Your task to perform on an android device: clear all cookies in the chrome app Image 0: 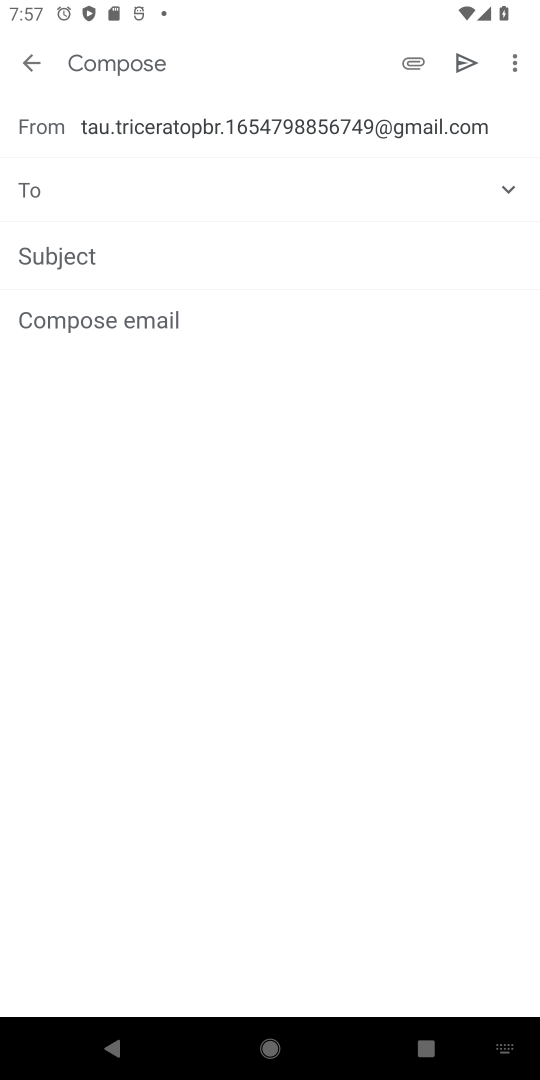
Step 0: press back button
Your task to perform on an android device: clear all cookies in the chrome app Image 1: 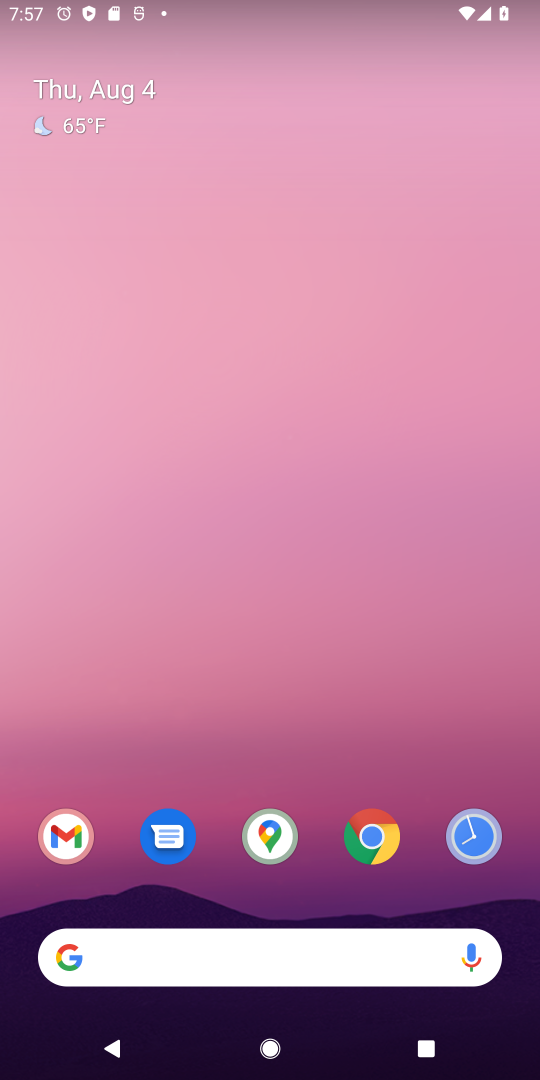
Step 1: click (377, 837)
Your task to perform on an android device: clear all cookies in the chrome app Image 2: 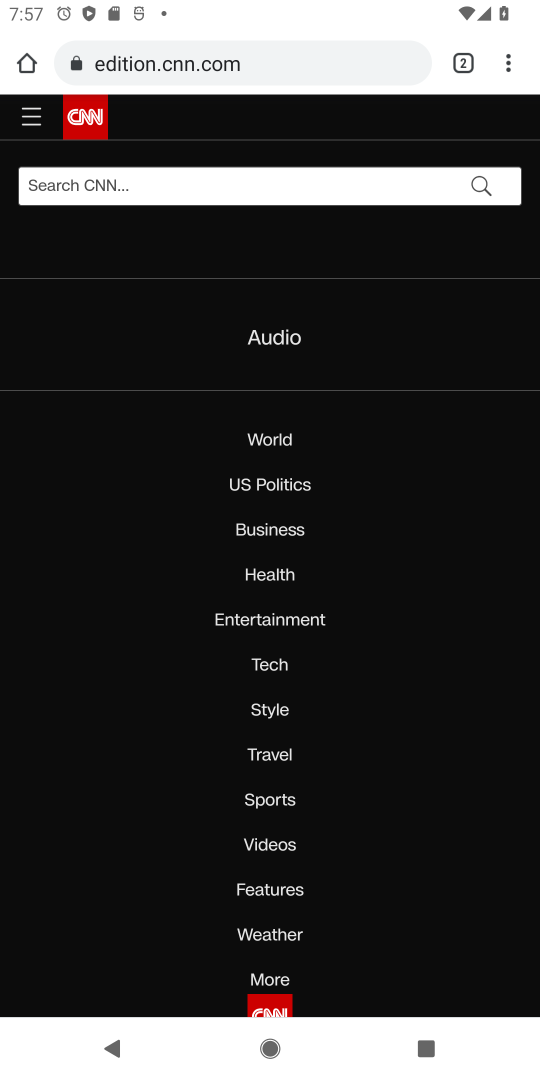
Step 2: drag from (503, 52) to (335, 821)
Your task to perform on an android device: clear all cookies in the chrome app Image 3: 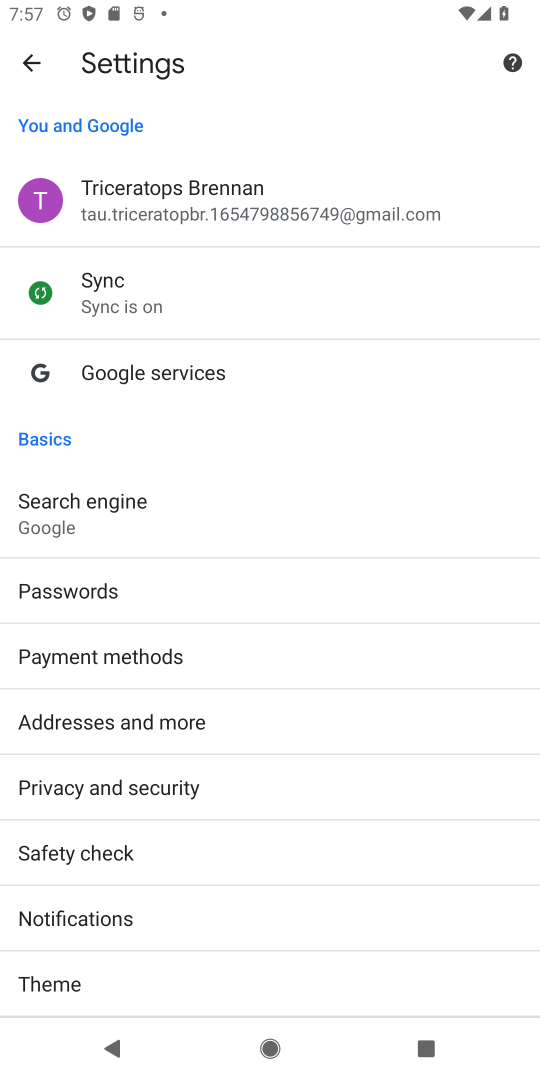
Step 3: click (37, 58)
Your task to perform on an android device: clear all cookies in the chrome app Image 4: 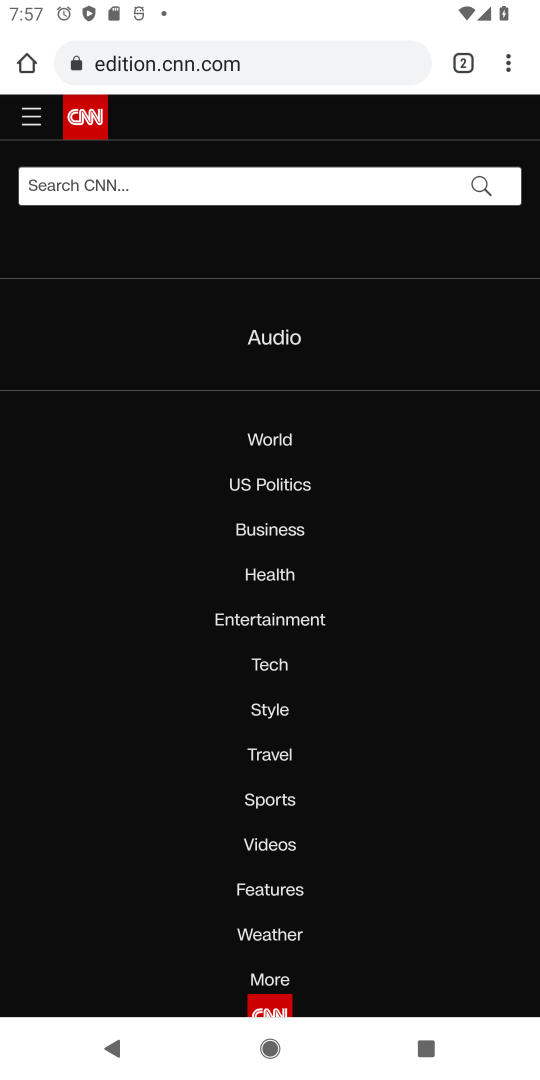
Step 4: drag from (508, 59) to (339, 324)
Your task to perform on an android device: clear all cookies in the chrome app Image 5: 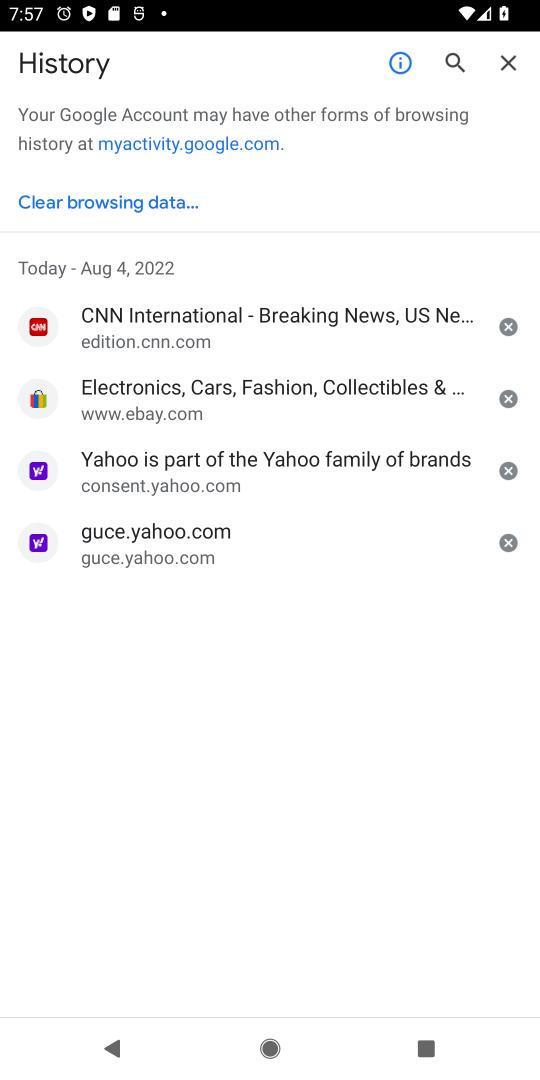
Step 5: click (100, 193)
Your task to perform on an android device: clear all cookies in the chrome app Image 6: 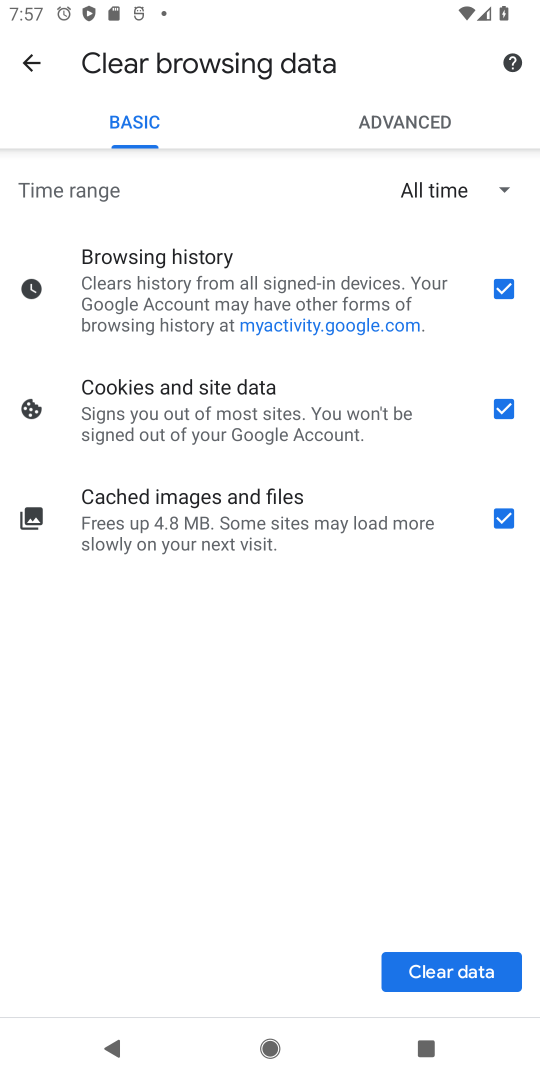
Step 6: click (502, 284)
Your task to perform on an android device: clear all cookies in the chrome app Image 7: 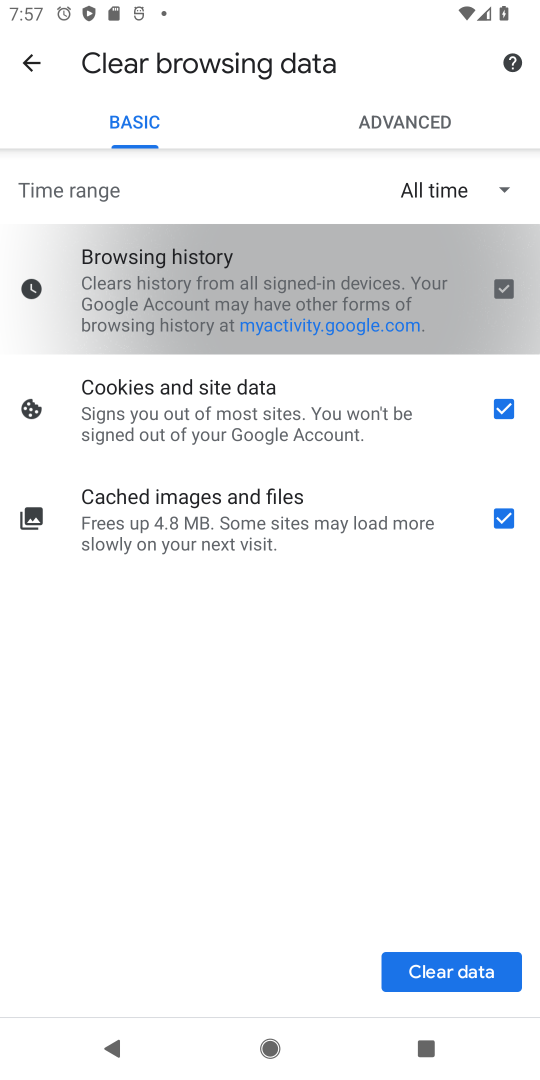
Step 7: click (508, 510)
Your task to perform on an android device: clear all cookies in the chrome app Image 8: 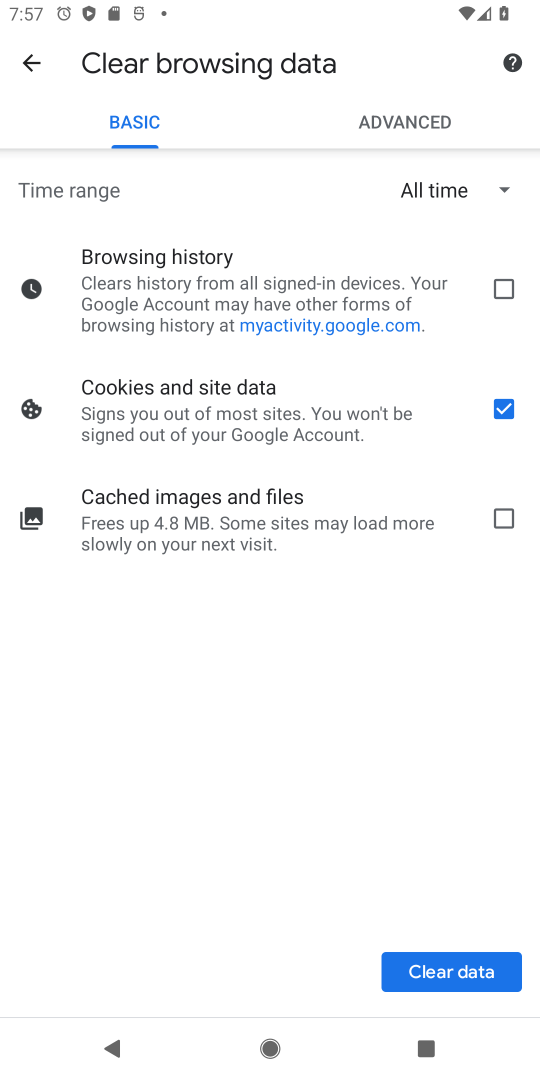
Step 8: click (427, 969)
Your task to perform on an android device: clear all cookies in the chrome app Image 9: 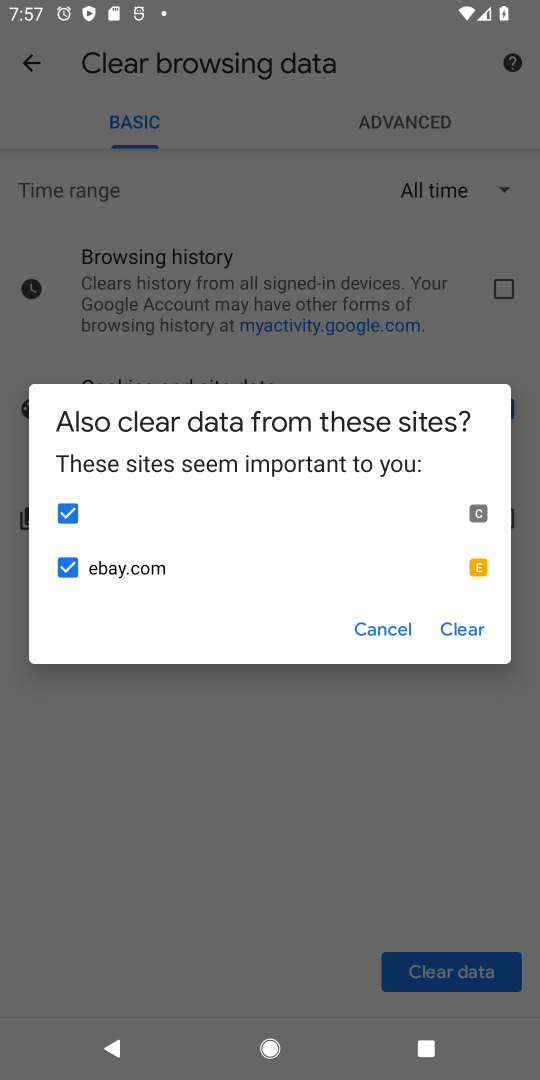
Step 9: click (470, 610)
Your task to perform on an android device: clear all cookies in the chrome app Image 10: 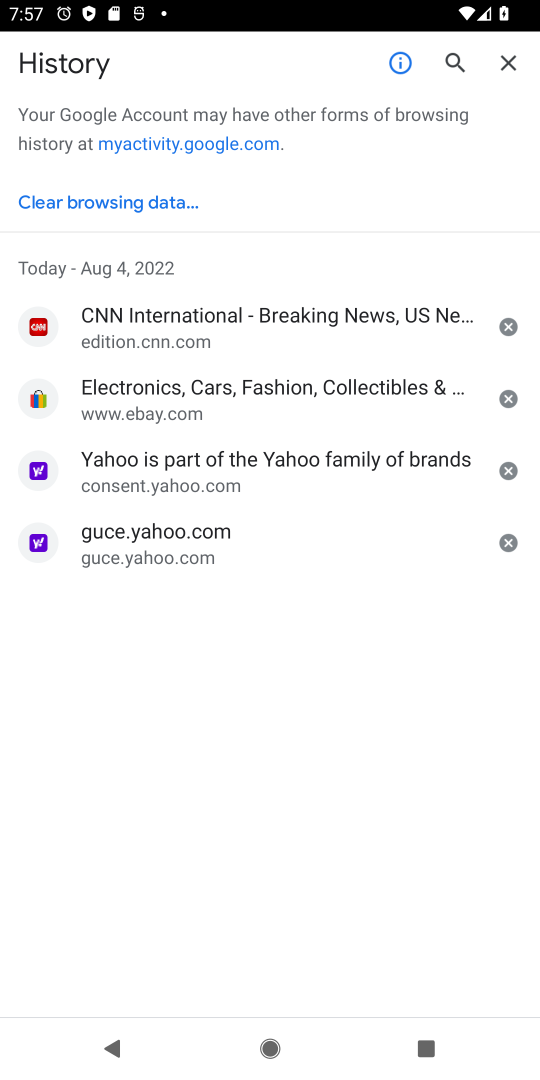
Step 10: task complete